Your task to perform on an android device: turn off data saver in the chrome app Image 0: 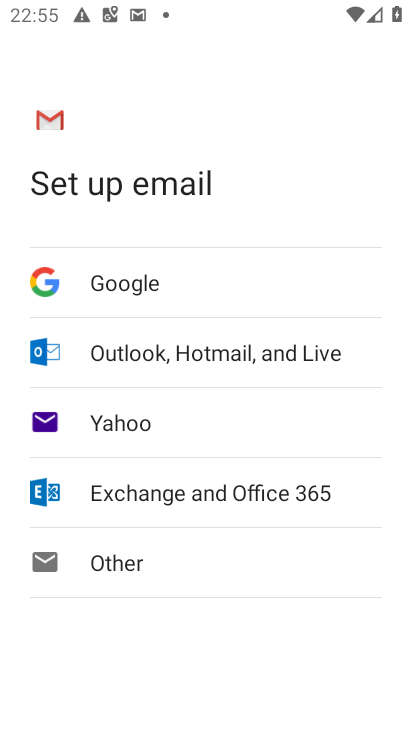
Step 0: press home button
Your task to perform on an android device: turn off data saver in the chrome app Image 1: 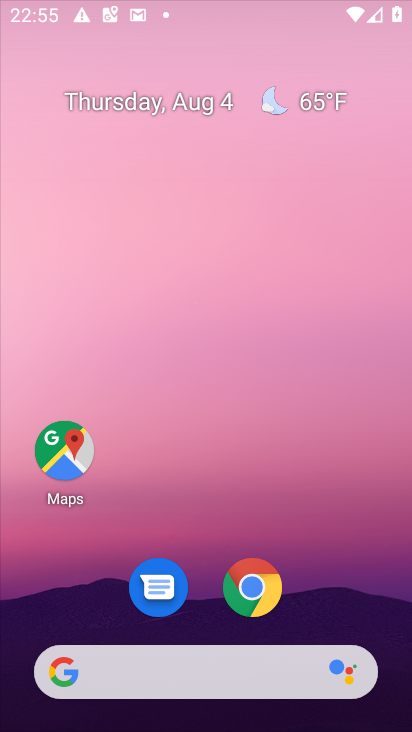
Step 1: drag from (135, 615) to (215, 8)
Your task to perform on an android device: turn off data saver in the chrome app Image 2: 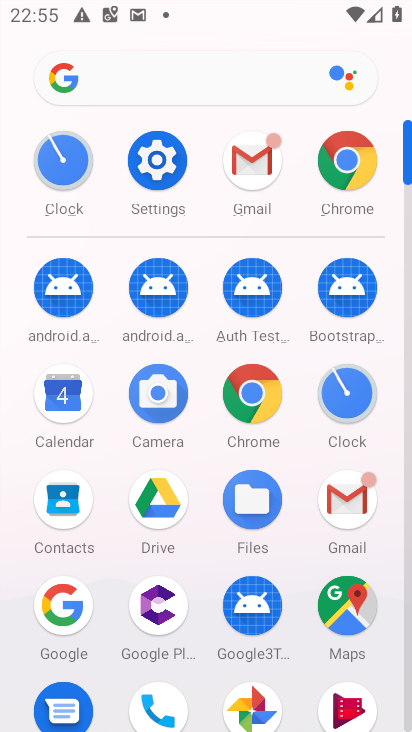
Step 2: click (243, 385)
Your task to perform on an android device: turn off data saver in the chrome app Image 3: 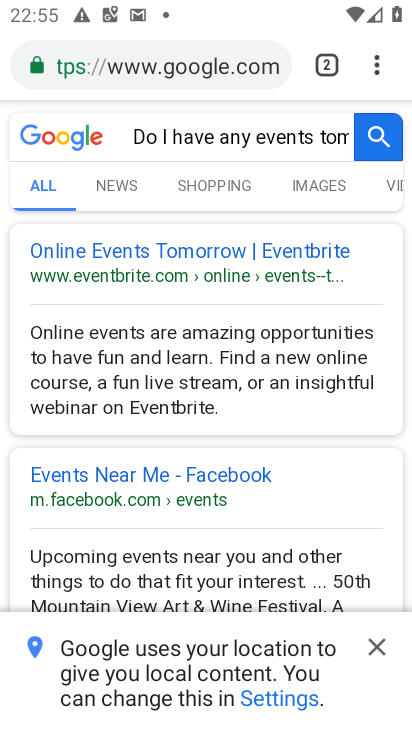
Step 3: click (382, 56)
Your task to perform on an android device: turn off data saver in the chrome app Image 4: 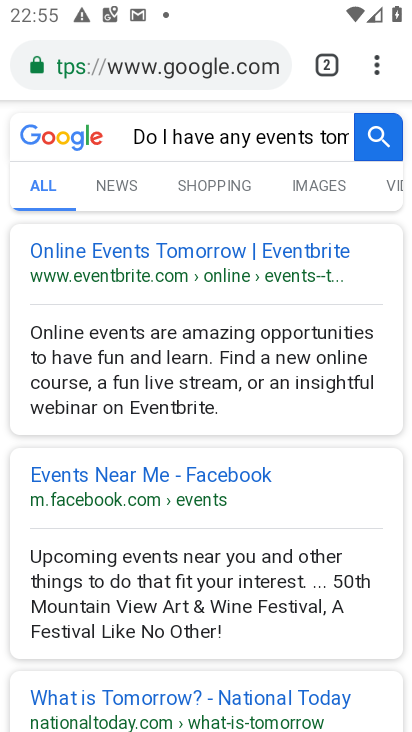
Step 4: click (381, 60)
Your task to perform on an android device: turn off data saver in the chrome app Image 5: 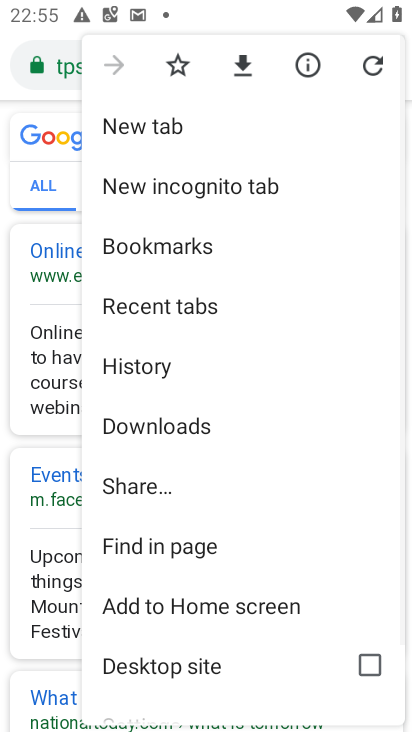
Step 5: drag from (190, 651) to (233, 196)
Your task to perform on an android device: turn off data saver in the chrome app Image 6: 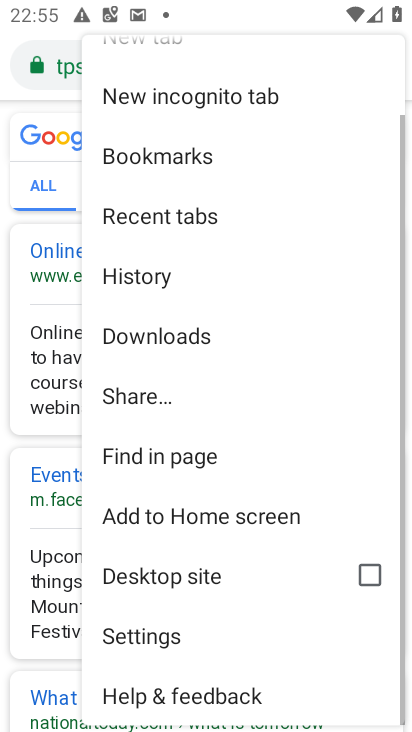
Step 6: click (171, 638)
Your task to perform on an android device: turn off data saver in the chrome app Image 7: 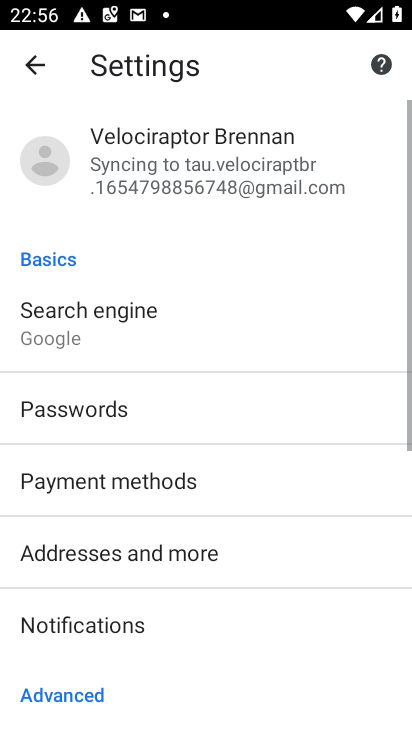
Step 7: drag from (124, 661) to (203, 161)
Your task to perform on an android device: turn off data saver in the chrome app Image 8: 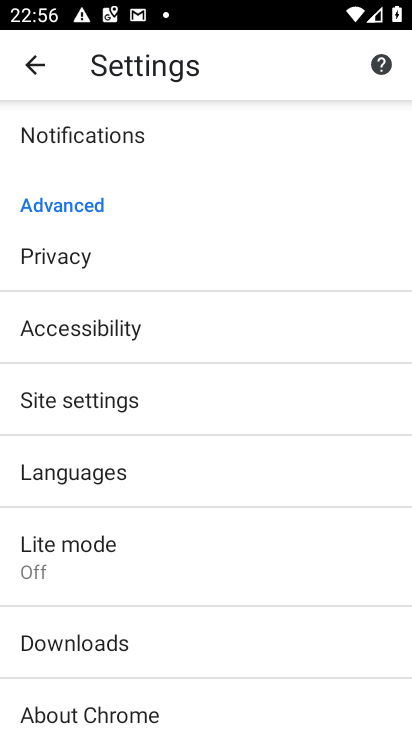
Step 8: click (89, 565)
Your task to perform on an android device: turn off data saver in the chrome app Image 9: 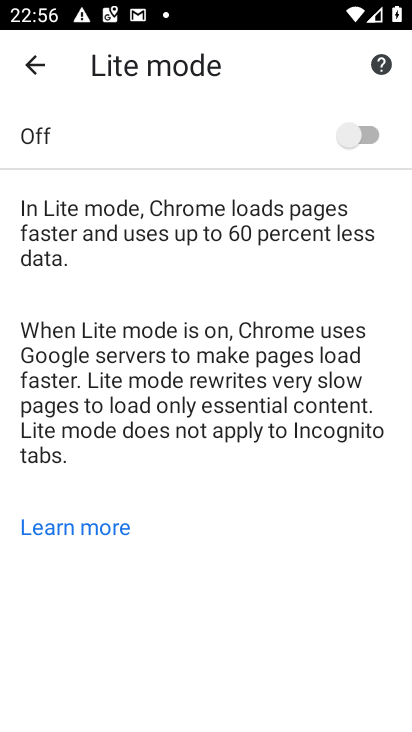
Step 9: task complete